Your task to perform on an android device: Go to calendar. Show me events next week Image 0: 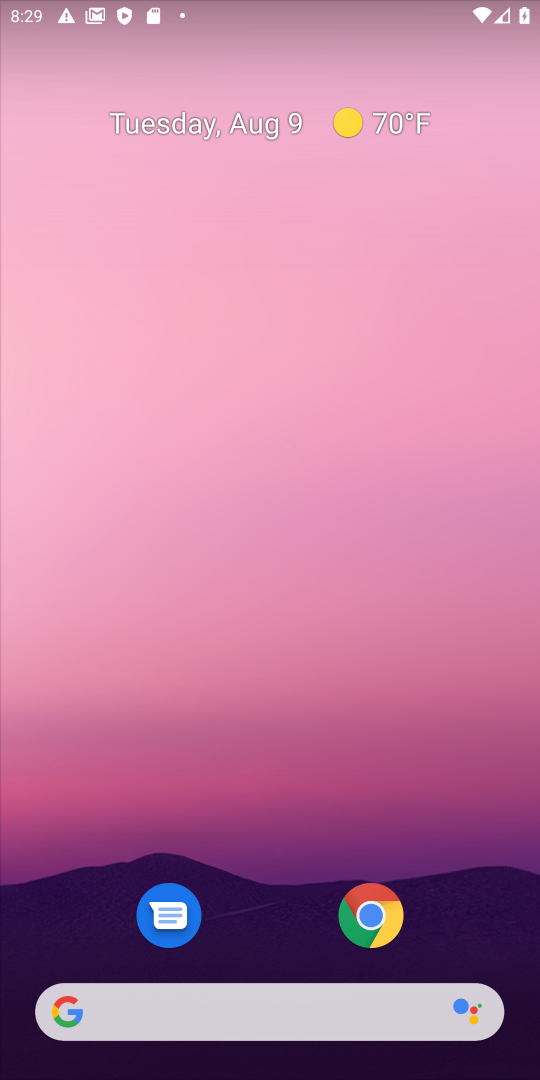
Step 0: drag from (291, 933) to (60, 8)
Your task to perform on an android device: Go to calendar. Show me events next week Image 1: 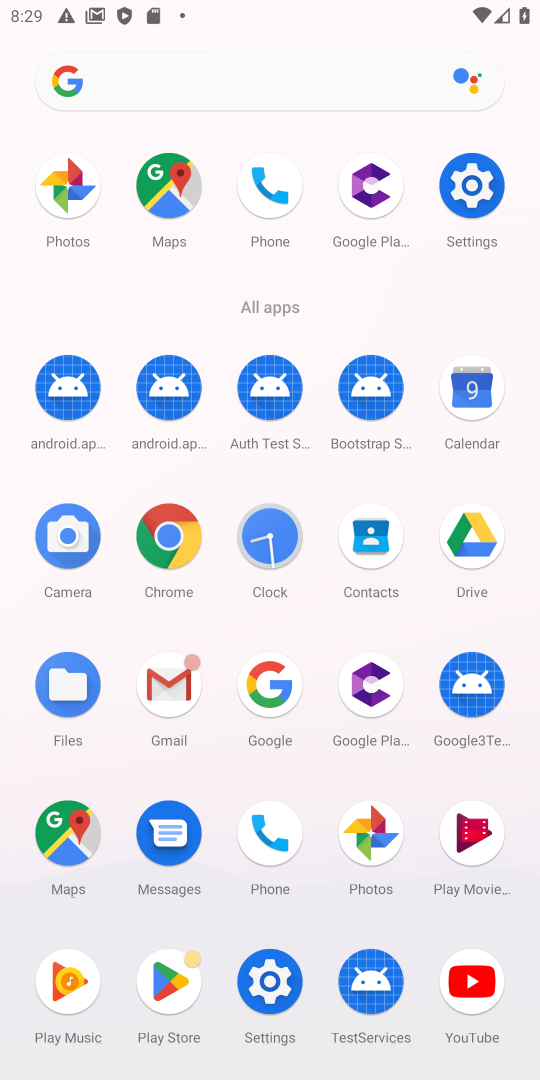
Step 1: click (453, 385)
Your task to perform on an android device: Go to calendar. Show me events next week Image 2: 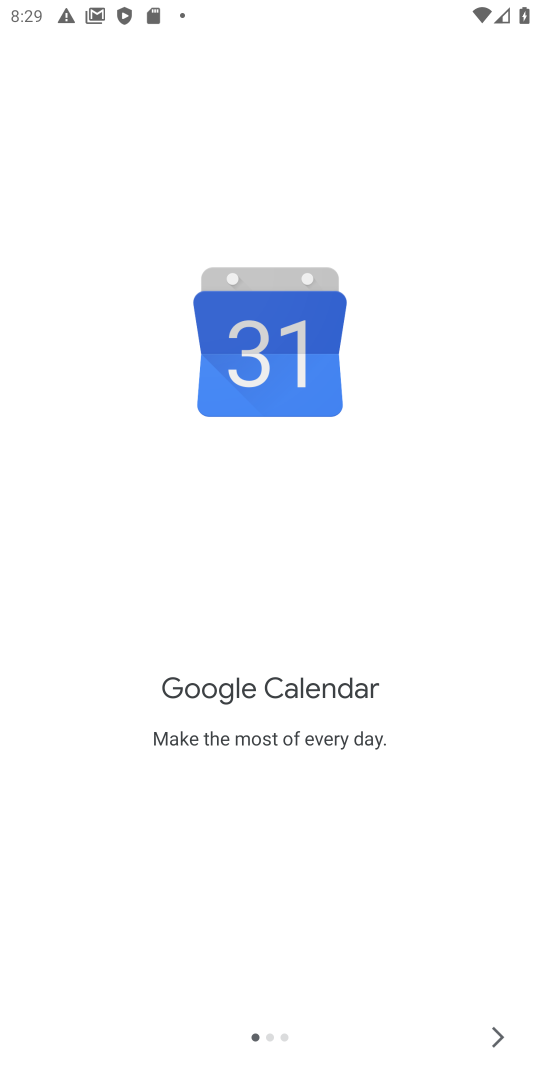
Step 2: click (498, 1032)
Your task to perform on an android device: Go to calendar. Show me events next week Image 3: 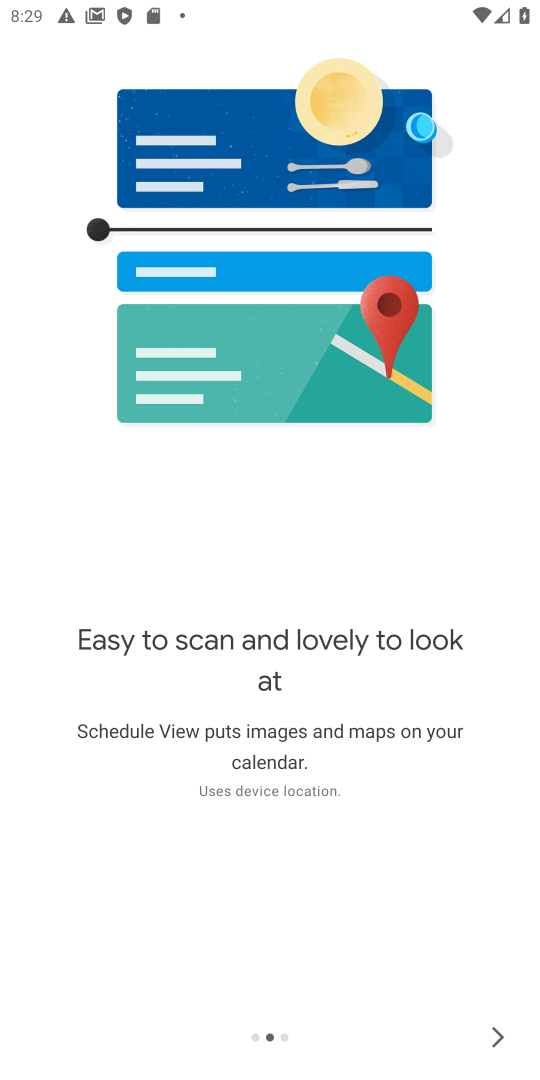
Step 3: click (498, 1032)
Your task to perform on an android device: Go to calendar. Show me events next week Image 4: 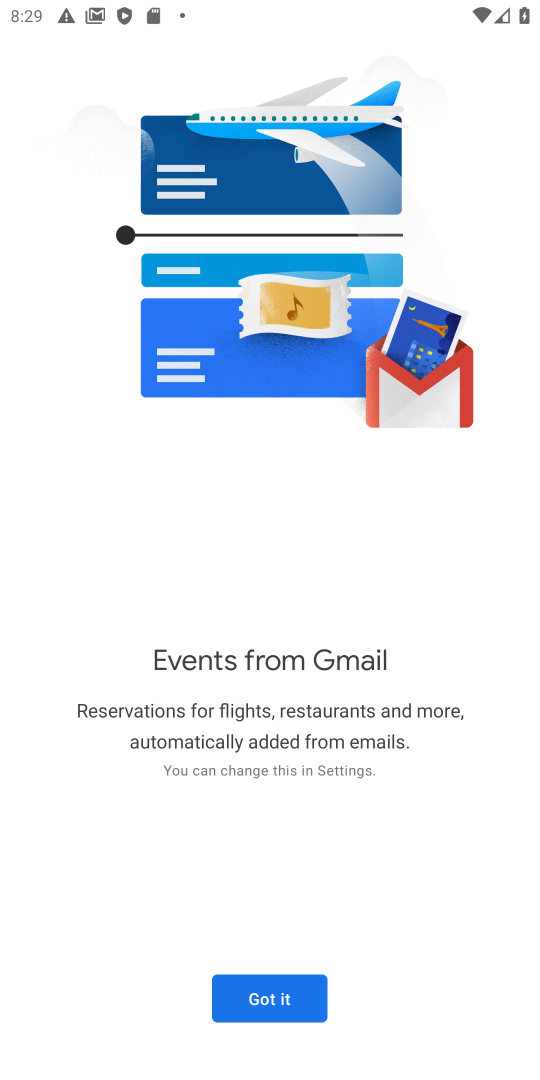
Step 4: click (291, 1000)
Your task to perform on an android device: Go to calendar. Show me events next week Image 5: 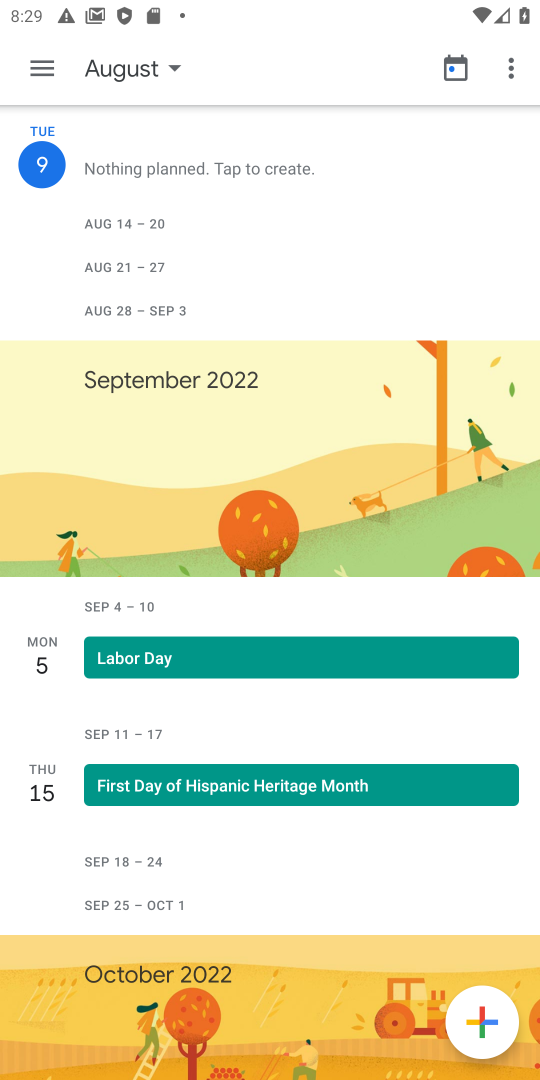
Step 5: click (29, 63)
Your task to perform on an android device: Go to calendar. Show me events next week Image 6: 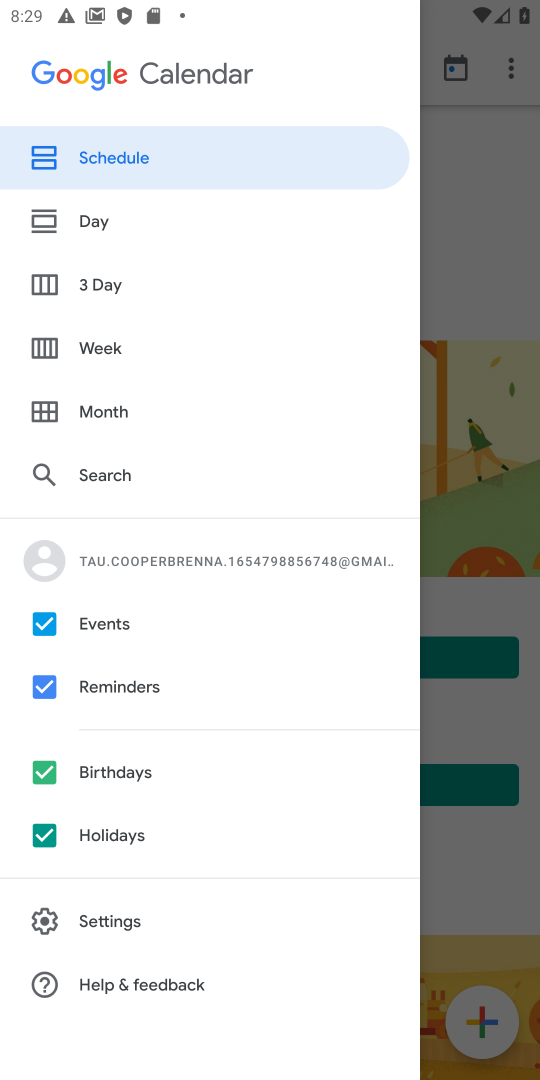
Step 6: click (85, 355)
Your task to perform on an android device: Go to calendar. Show me events next week Image 7: 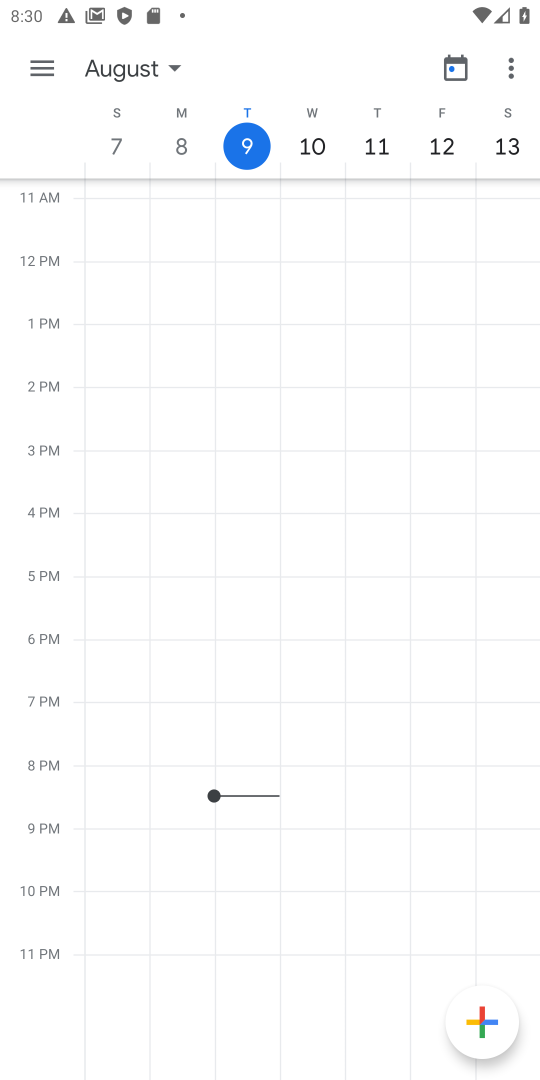
Step 7: drag from (497, 143) to (209, 170)
Your task to perform on an android device: Go to calendar. Show me events next week Image 8: 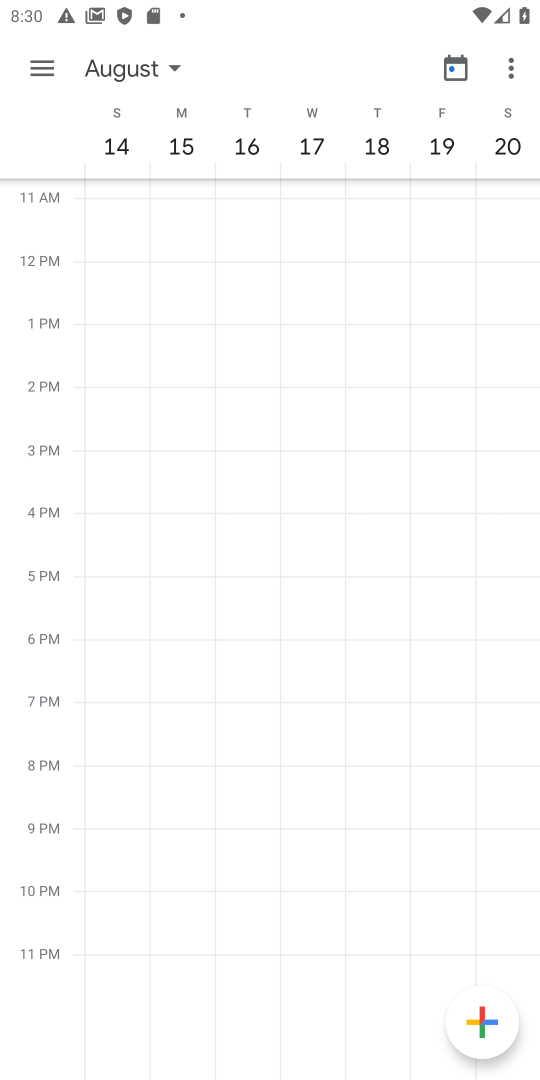
Step 8: click (28, 62)
Your task to perform on an android device: Go to calendar. Show me events next week Image 9: 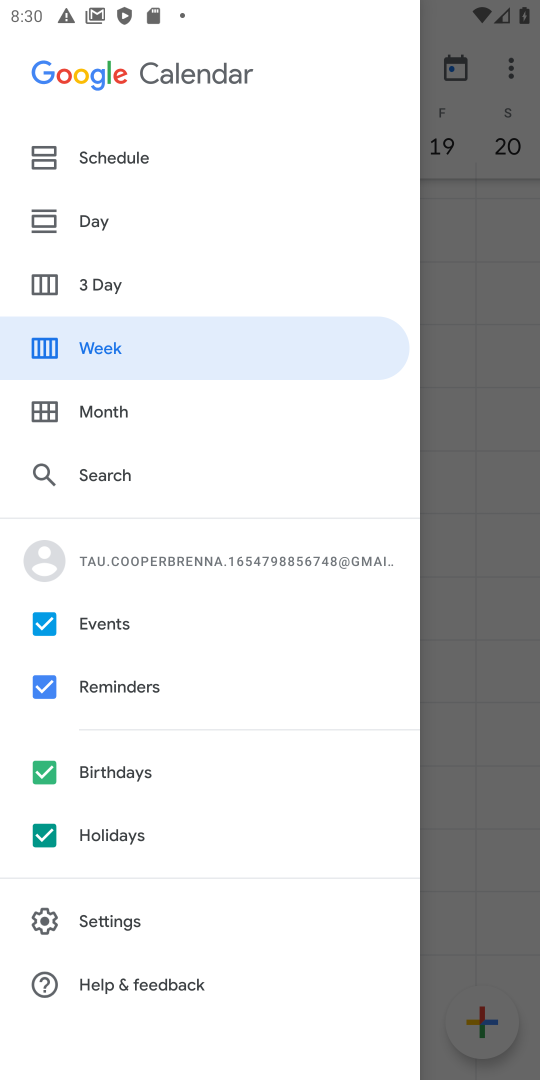
Step 9: click (264, 360)
Your task to perform on an android device: Go to calendar. Show me events next week Image 10: 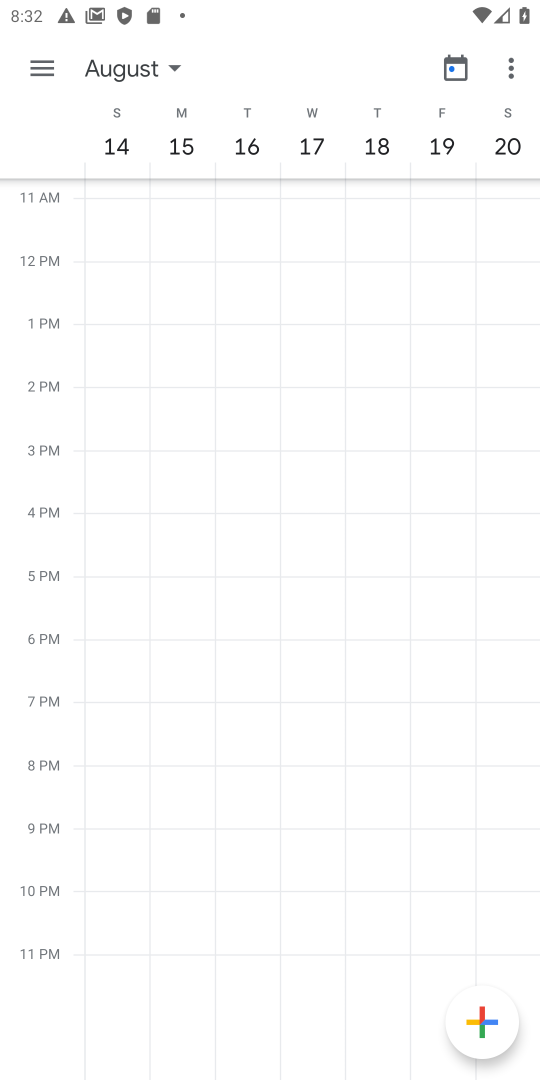
Step 10: task complete